Your task to perform on an android device: turn on the 24-hour format for clock Image 0: 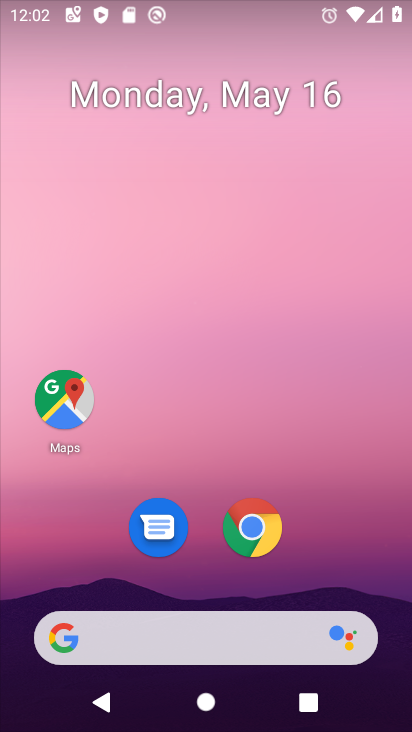
Step 0: drag from (342, 556) to (339, 188)
Your task to perform on an android device: turn on the 24-hour format for clock Image 1: 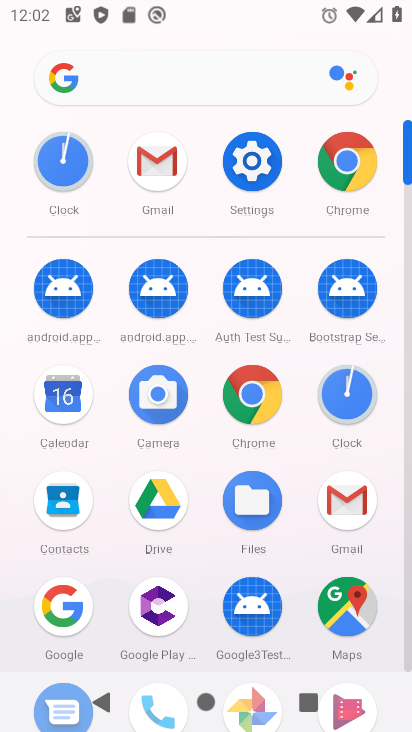
Step 1: click (274, 186)
Your task to perform on an android device: turn on the 24-hour format for clock Image 2: 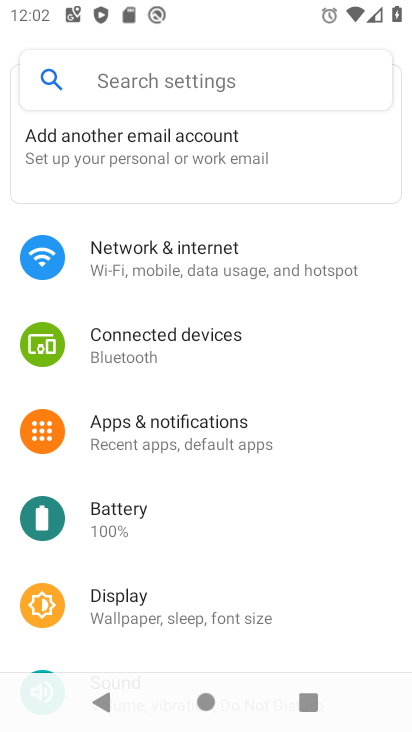
Step 2: press home button
Your task to perform on an android device: turn on the 24-hour format for clock Image 3: 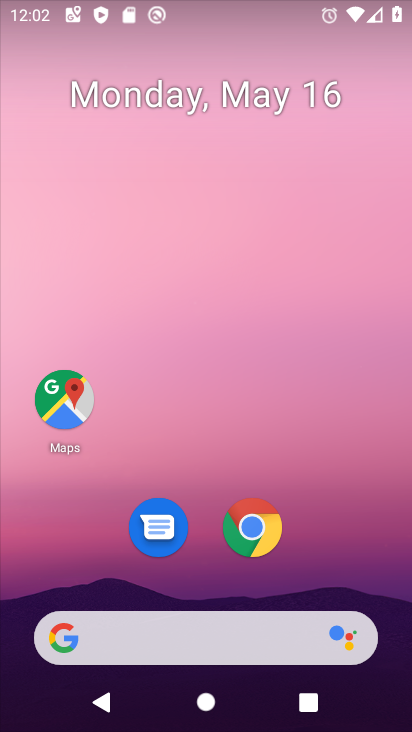
Step 3: drag from (326, 579) to (307, 282)
Your task to perform on an android device: turn on the 24-hour format for clock Image 4: 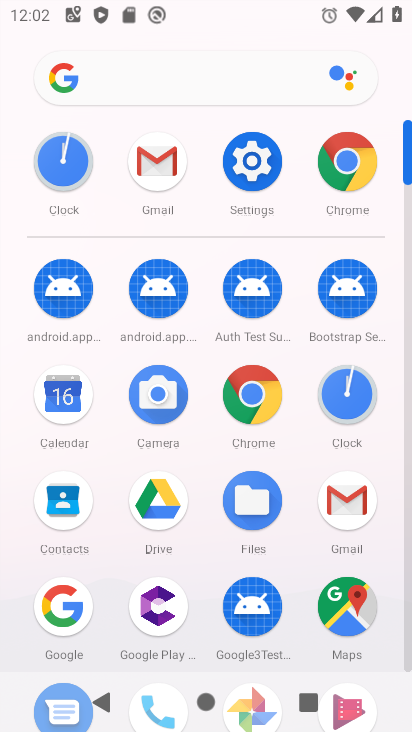
Step 4: click (356, 425)
Your task to perform on an android device: turn on the 24-hour format for clock Image 5: 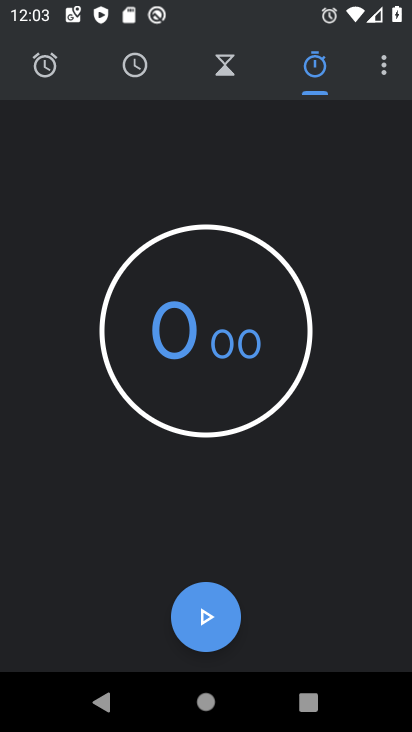
Step 5: click (377, 56)
Your task to perform on an android device: turn on the 24-hour format for clock Image 6: 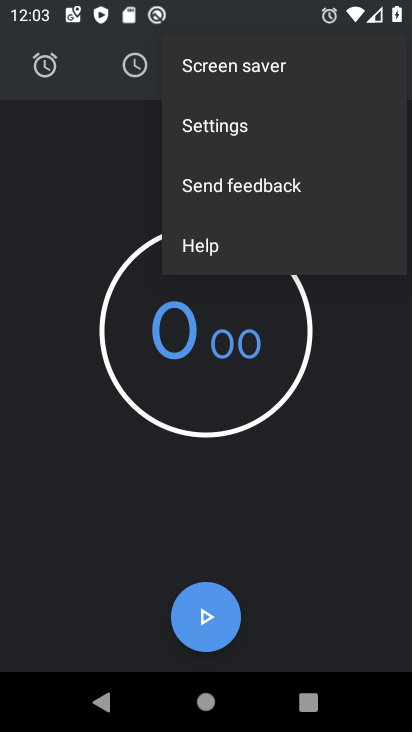
Step 6: click (307, 151)
Your task to perform on an android device: turn on the 24-hour format for clock Image 7: 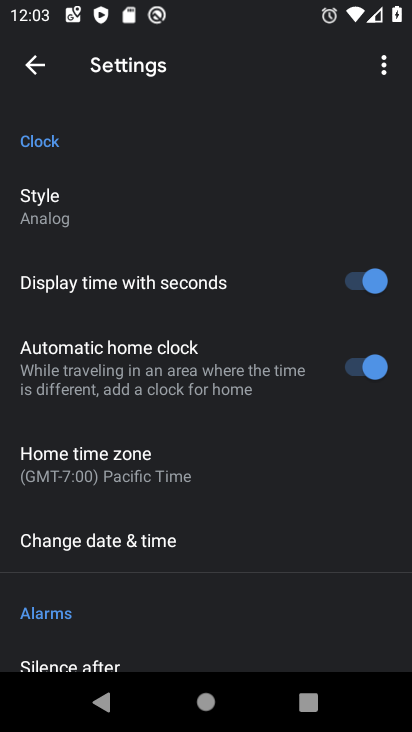
Step 7: click (102, 516)
Your task to perform on an android device: turn on the 24-hour format for clock Image 8: 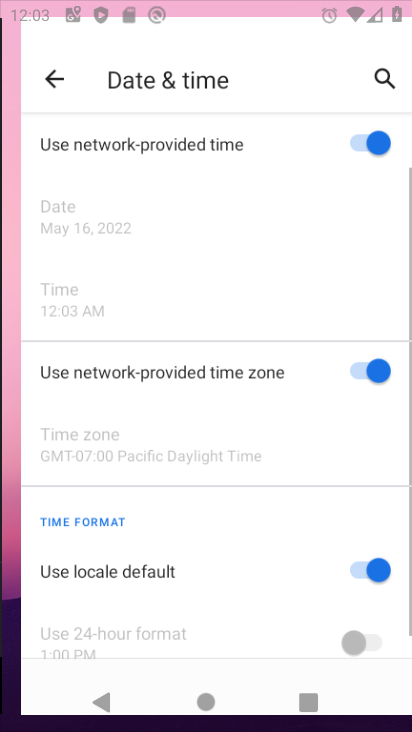
Step 8: drag from (102, 516) to (100, 268)
Your task to perform on an android device: turn on the 24-hour format for clock Image 9: 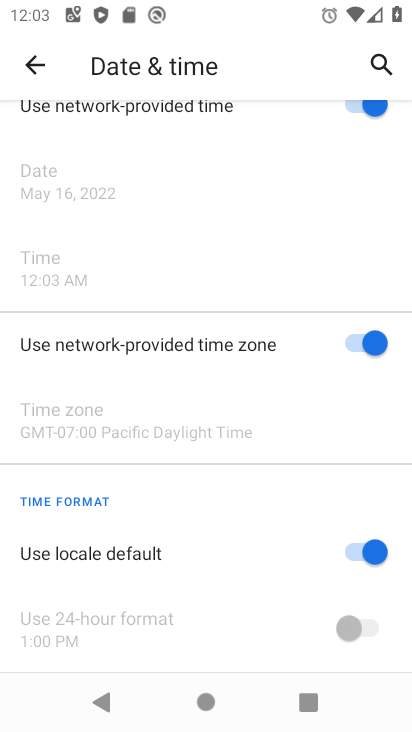
Step 9: click (207, 559)
Your task to perform on an android device: turn on the 24-hour format for clock Image 10: 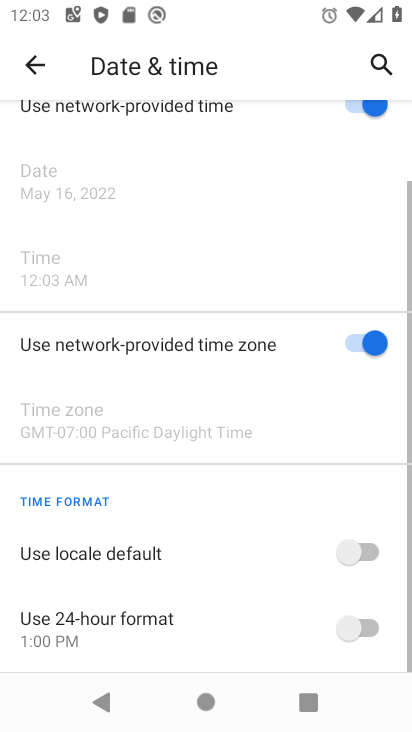
Step 10: click (332, 632)
Your task to perform on an android device: turn on the 24-hour format for clock Image 11: 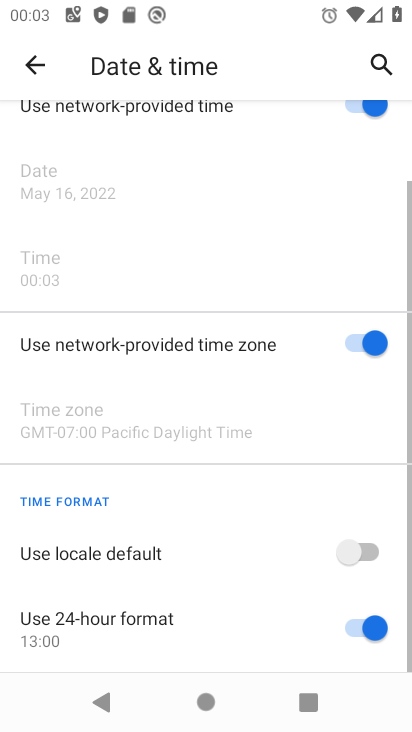
Step 11: task complete